Your task to perform on an android device: check google app version Image 0: 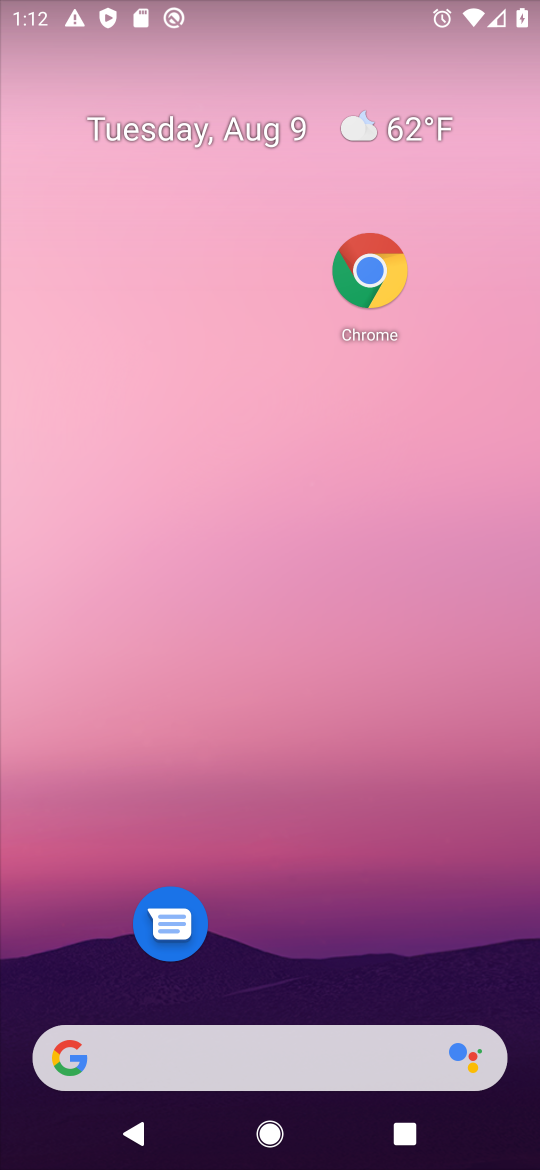
Step 0: drag from (399, 996) to (185, 114)
Your task to perform on an android device: check google app version Image 1: 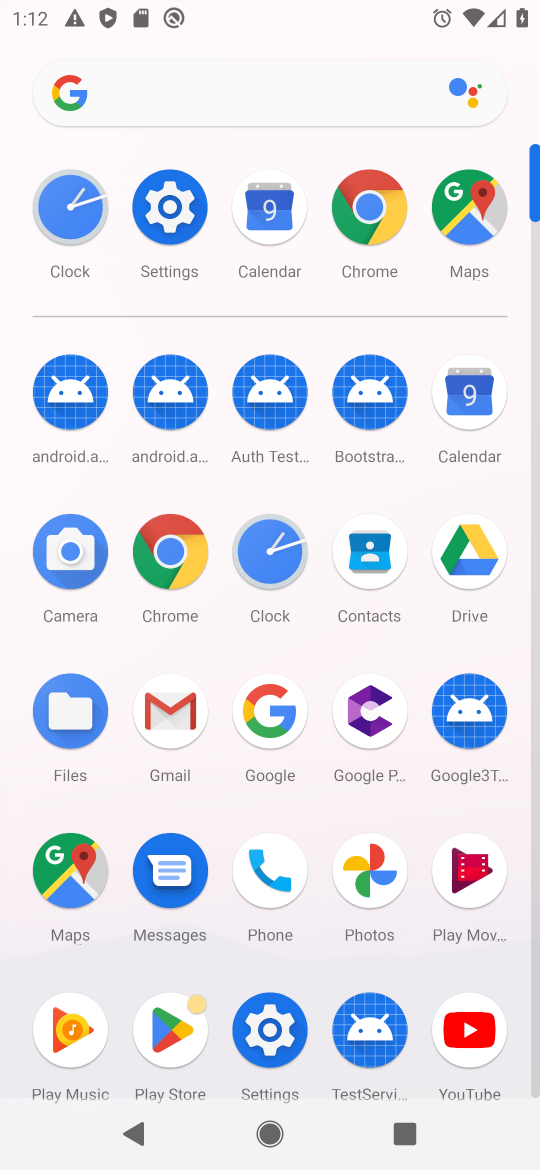
Step 1: click (279, 1058)
Your task to perform on an android device: check google app version Image 2: 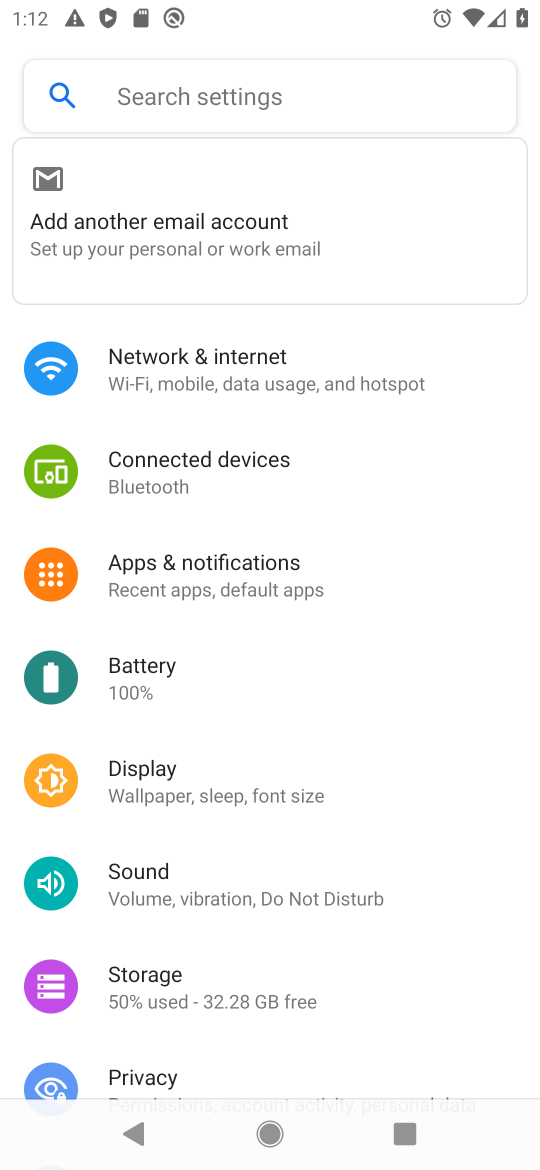
Step 2: press home button
Your task to perform on an android device: check google app version Image 3: 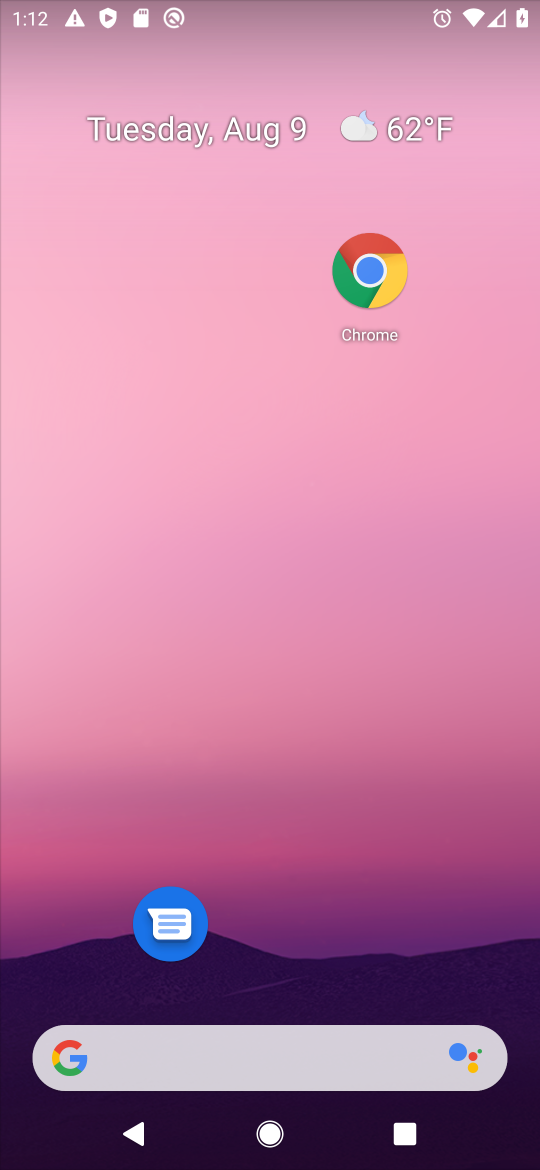
Step 3: click (365, 256)
Your task to perform on an android device: check google app version Image 4: 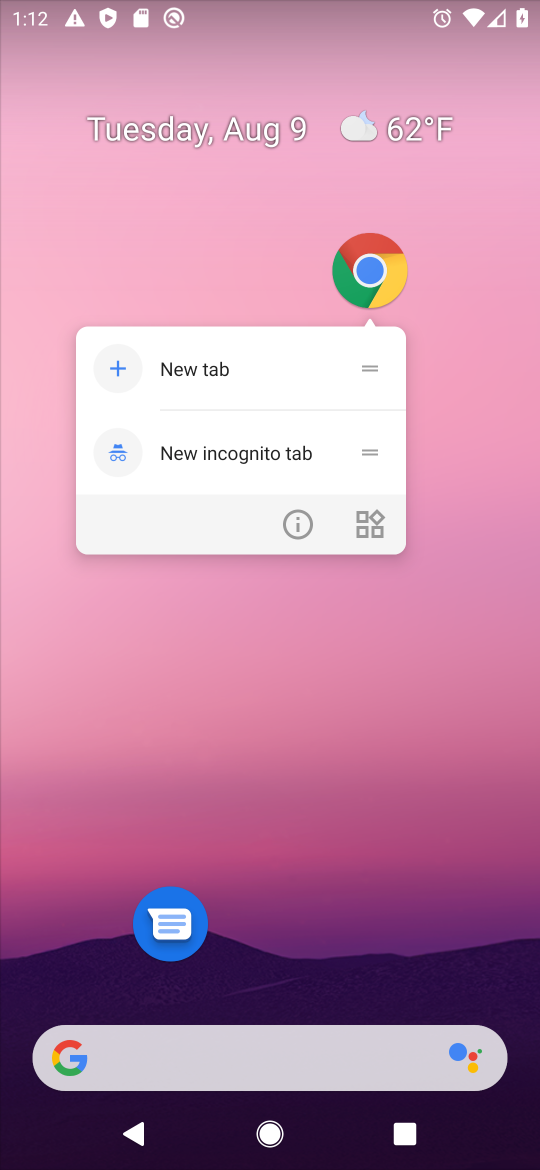
Step 4: click (296, 517)
Your task to perform on an android device: check google app version Image 5: 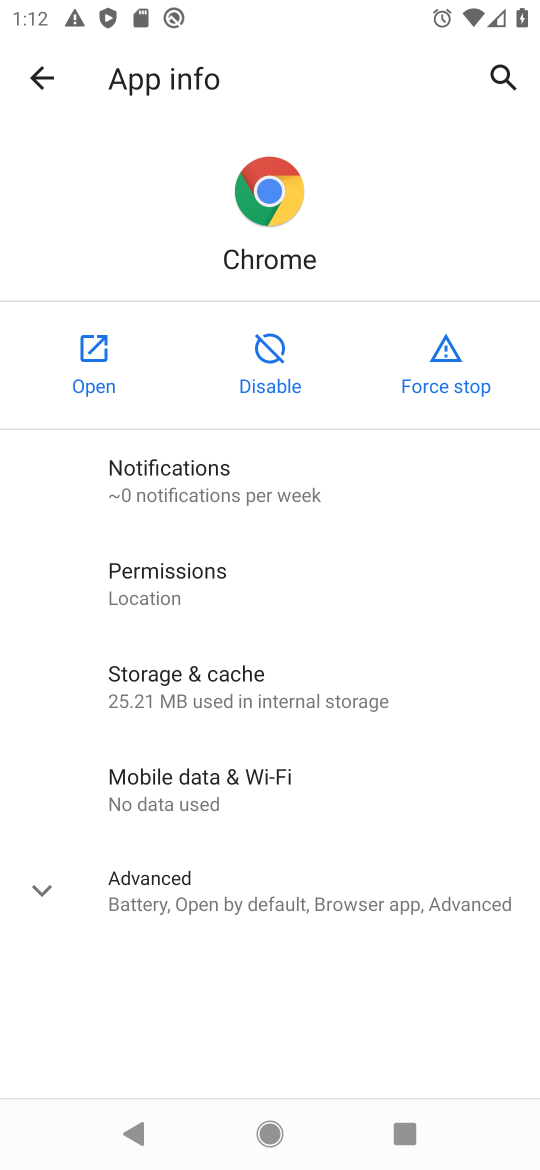
Step 5: task complete